Your task to perform on an android device: Find coffee shops on Maps Image 0: 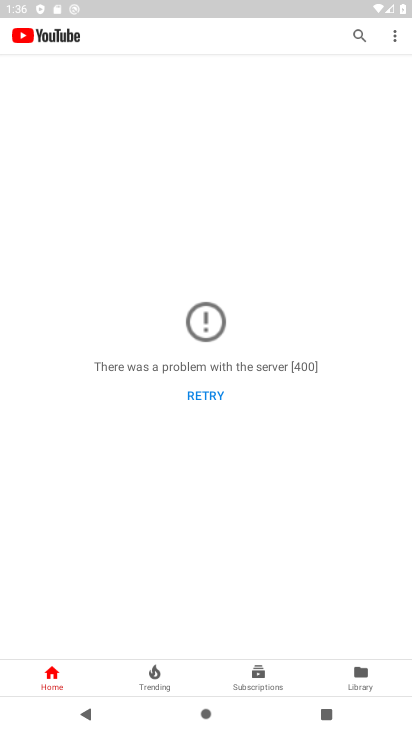
Step 0: press home button
Your task to perform on an android device: Find coffee shops on Maps Image 1: 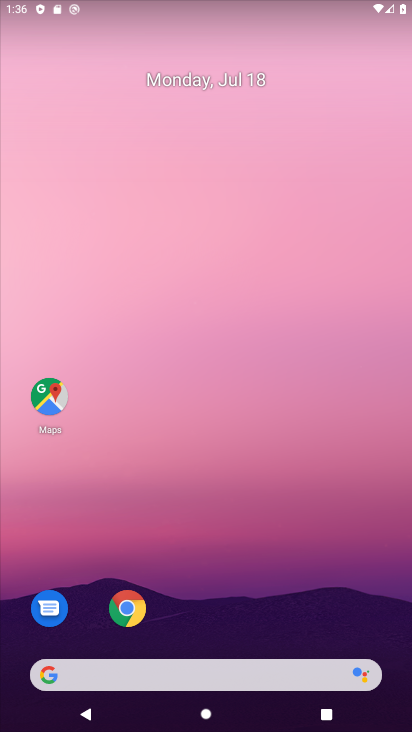
Step 1: click (50, 380)
Your task to perform on an android device: Find coffee shops on Maps Image 2: 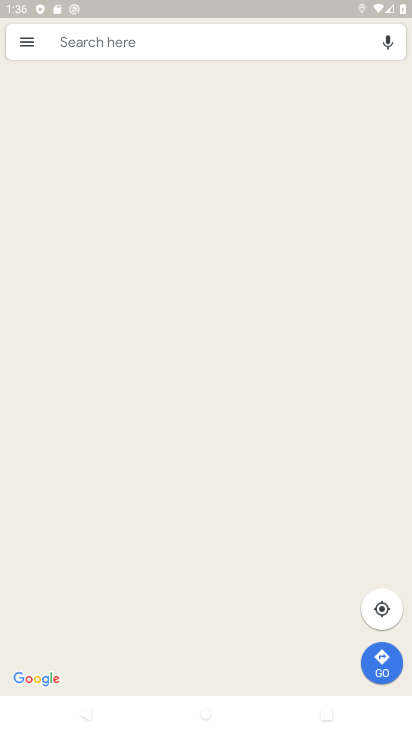
Step 2: click (212, 44)
Your task to perform on an android device: Find coffee shops on Maps Image 3: 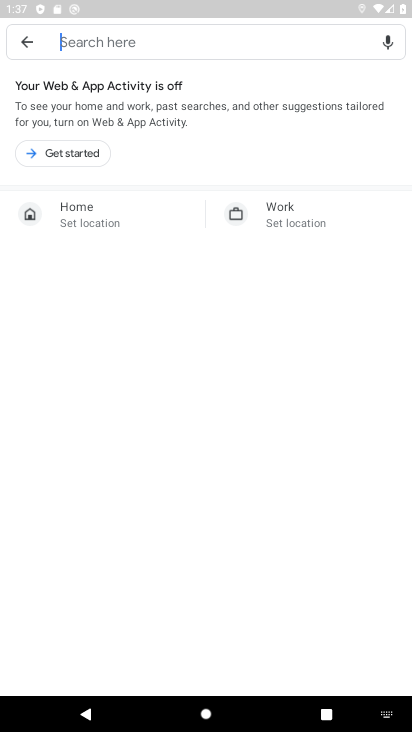
Step 3: type "Coffee shops"
Your task to perform on an android device: Find coffee shops on Maps Image 4: 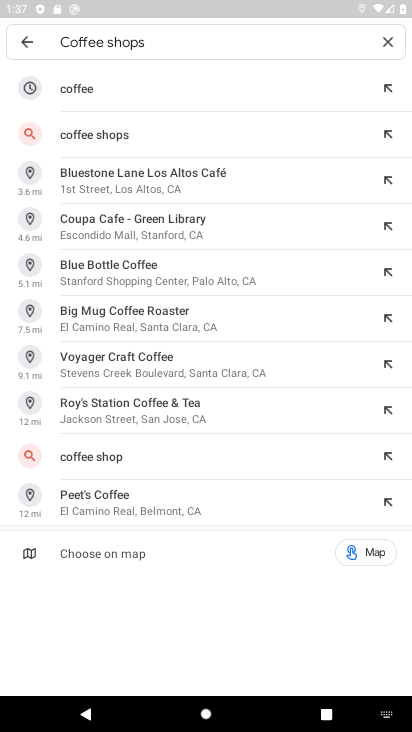
Step 4: click (144, 135)
Your task to perform on an android device: Find coffee shops on Maps Image 5: 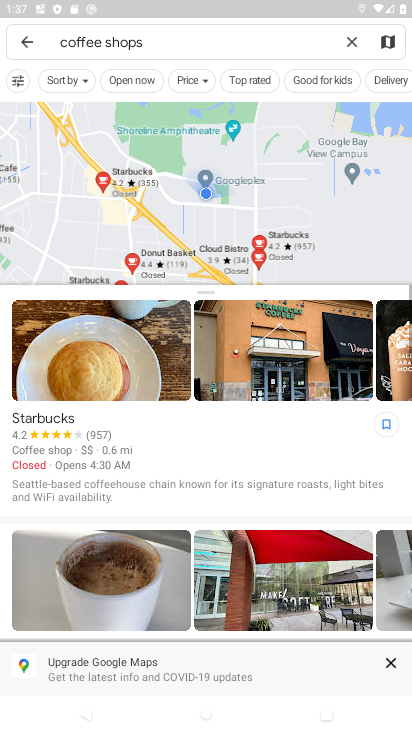
Step 5: task complete